Your task to perform on an android device: turn on airplane mode Image 0: 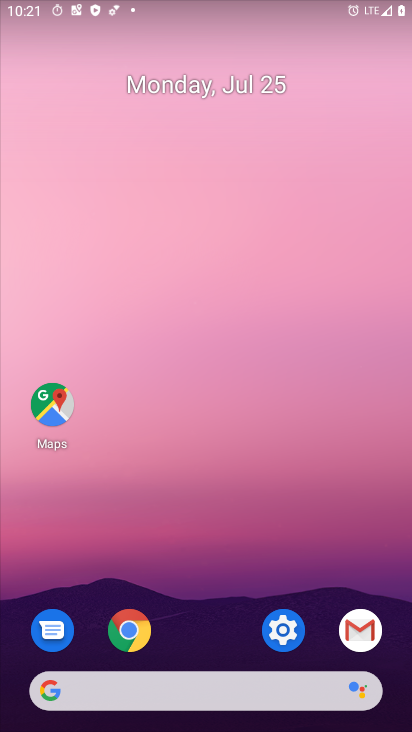
Step 0: click (278, 634)
Your task to perform on an android device: turn on airplane mode Image 1: 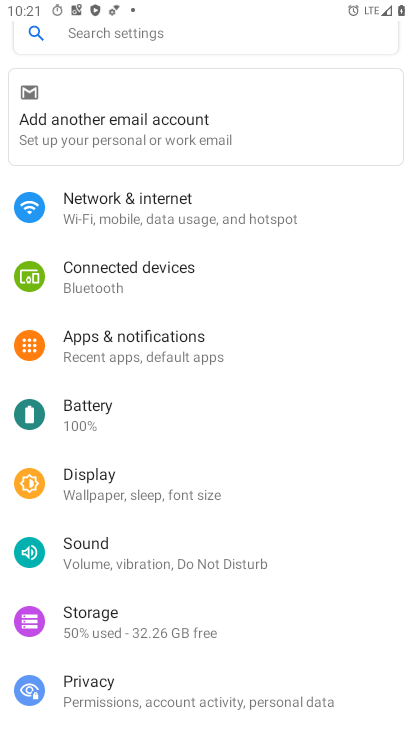
Step 1: click (127, 202)
Your task to perform on an android device: turn on airplane mode Image 2: 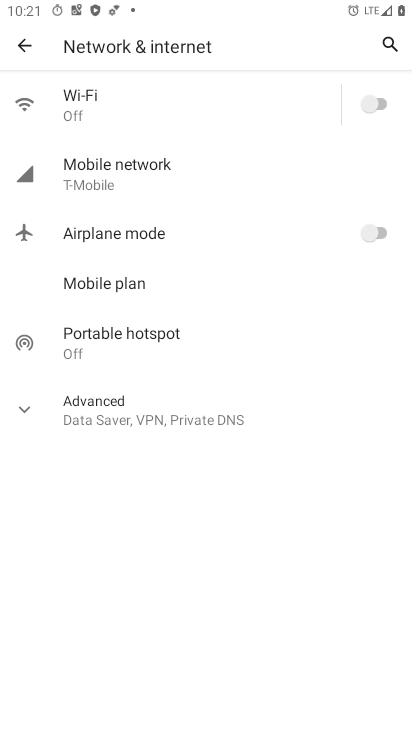
Step 2: click (347, 229)
Your task to perform on an android device: turn on airplane mode Image 3: 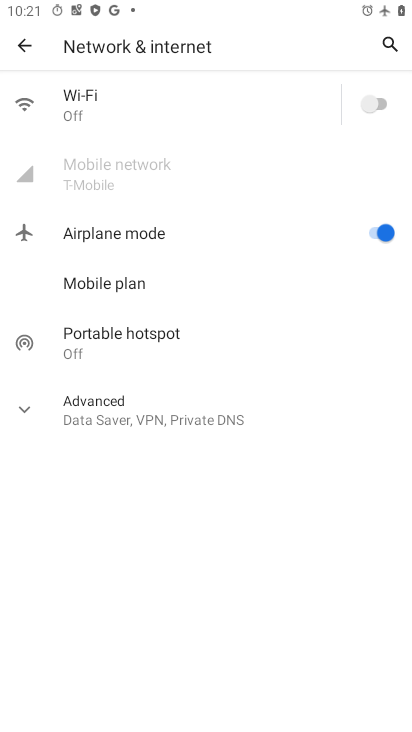
Step 3: task complete